Your task to perform on an android device: toggle notification dots Image 0: 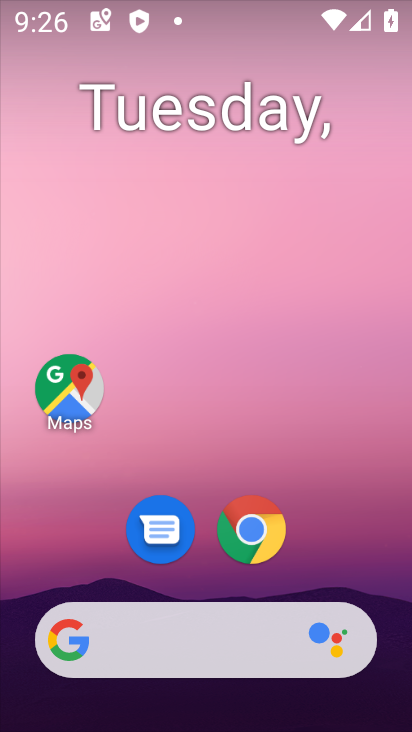
Step 0: drag from (254, 628) to (267, 206)
Your task to perform on an android device: toggle notification dots Image 1: 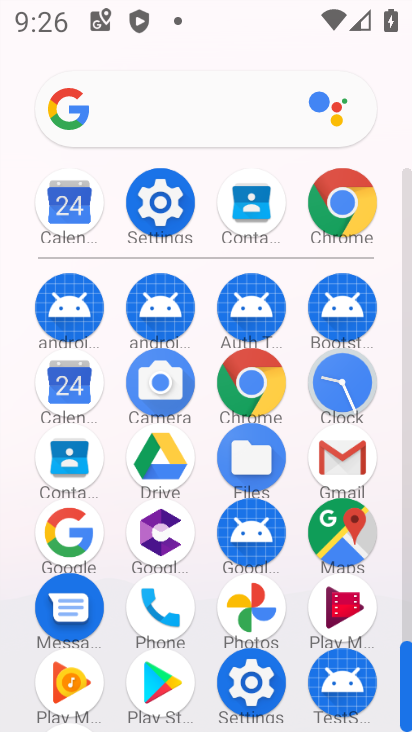
Step 1: click (178, 207)
Your task to perform on an android device: toggle notification dots Image 2: 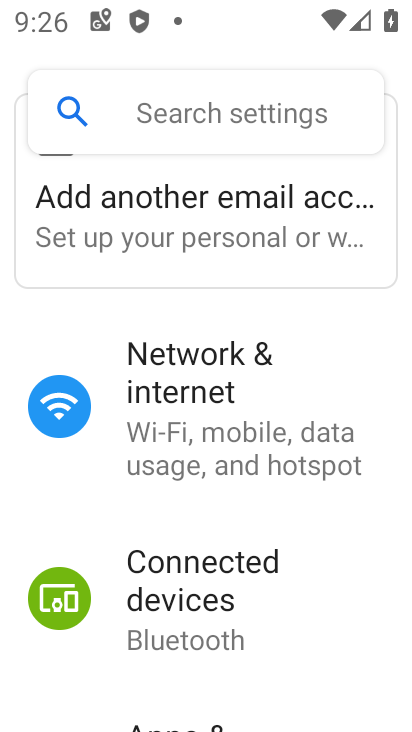
Step 2: drag from (160, 526) to (160, 305)
Your task to perform on an android device: toggle notification dots Image 3: 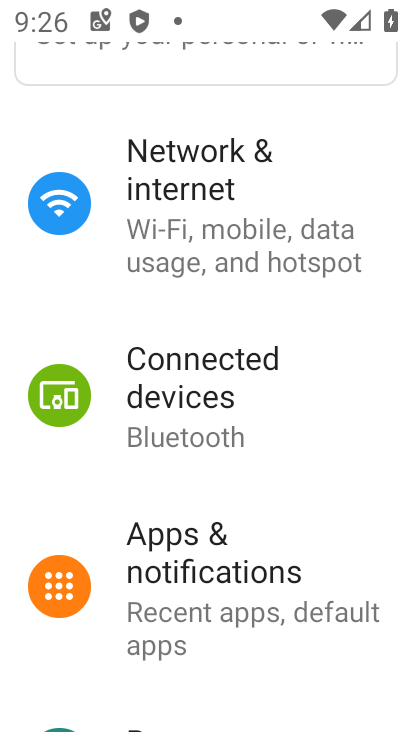
Step 3: drag from (185, 576) to (183, 450)
Your task to perform on an android device: toggle notification dots Image 4: 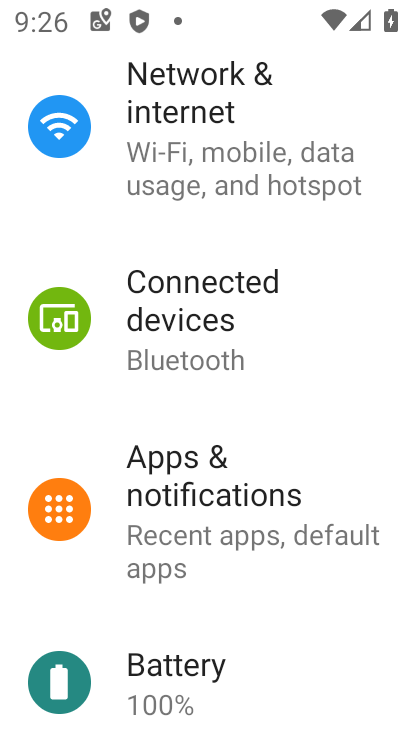
Step 4: click (239, 545)
Your task to perform on an android device: toggle notification dots Image 5: 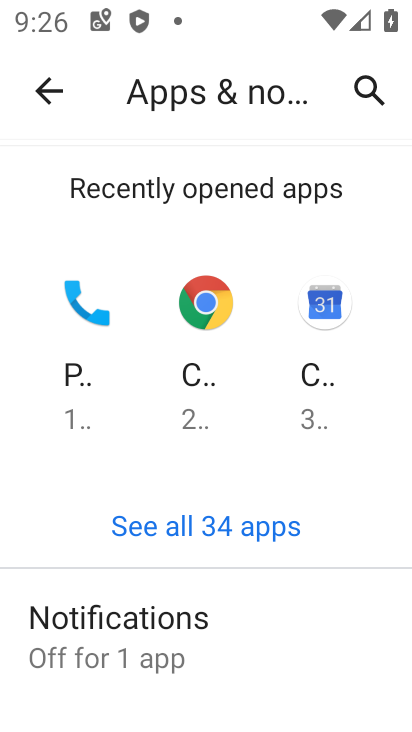
Step 5: drag from (217, 624) to (226, 497)
Your task to perform on an android device: toggle notification dots Image 6: 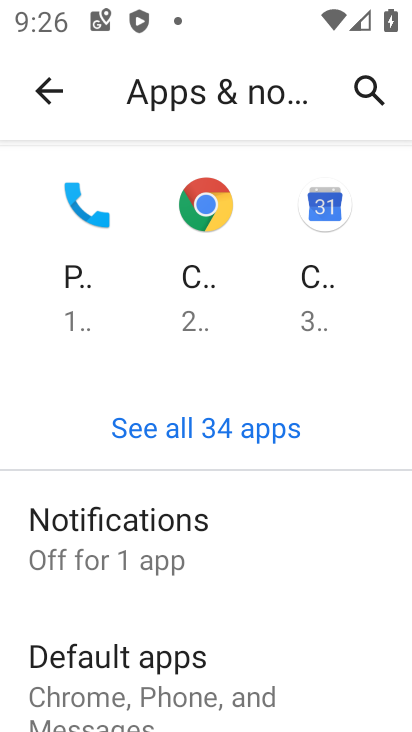
Step 6: click (210, 527)
Your task to perform on an android device: toggle notification dots Image 7: 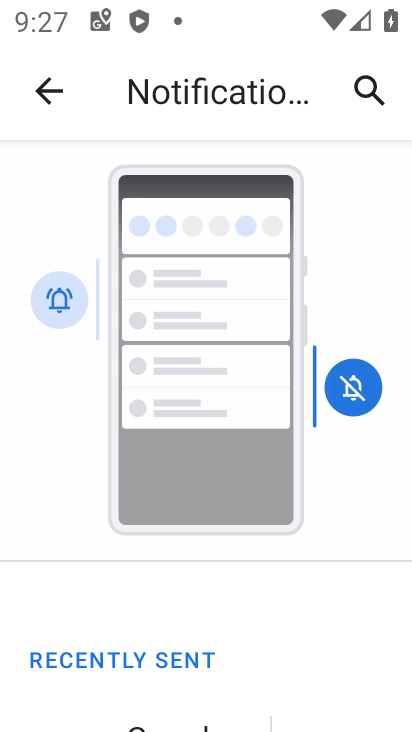
Step 7: drag from (205, 546) to (231, 316)
Your task to perform on an android device: toggle notification dots Image 8: 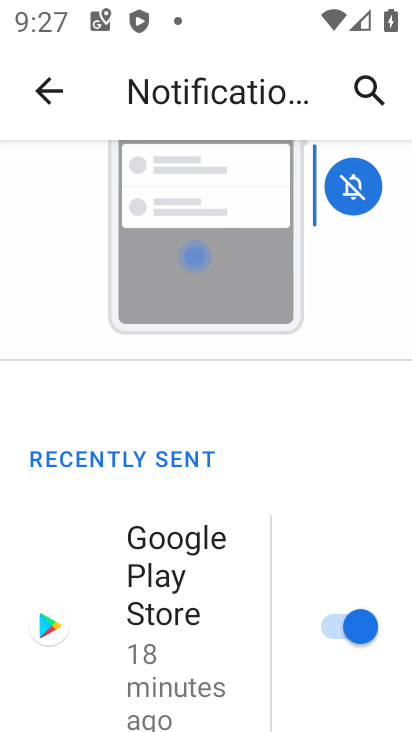
Step 8: drag from (197, 565) to (224, 436)
Your task to perform on an android device: toggle notification dots Image 9: 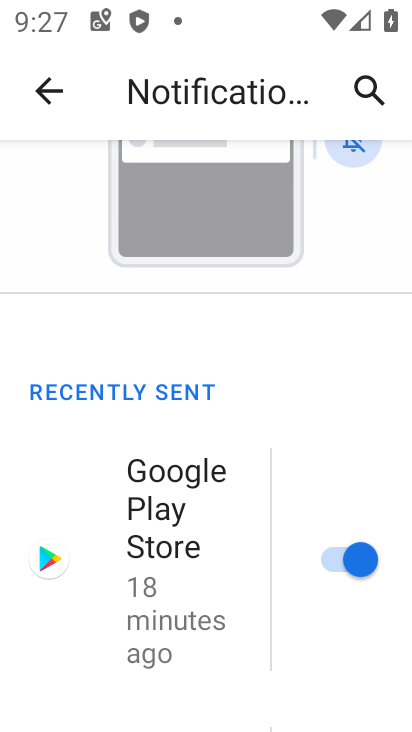
Step 9: drag from (193, 564) to (180, 314)
Your task to perform on an android device: toggle notification dots Image 10: 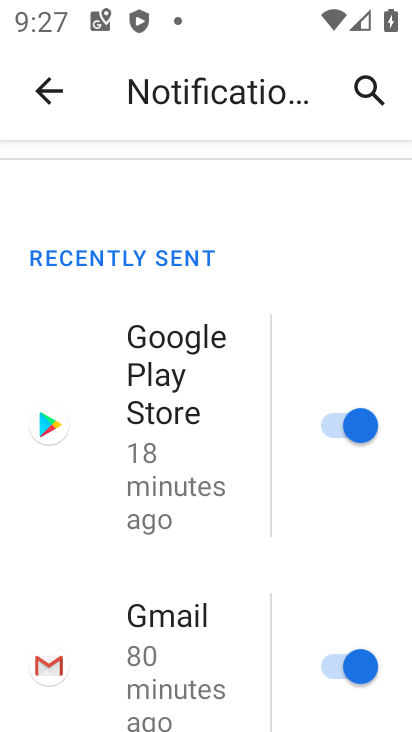
Step 10: drag from (154, 521) to (187, 256)
Your task to perform on an android device: toggle notification dots Image 11: 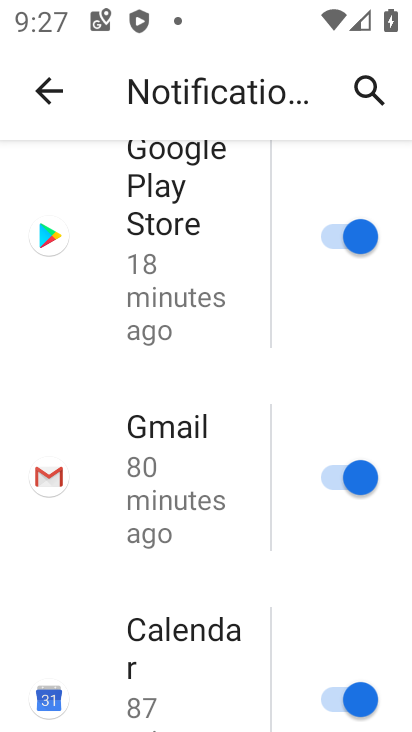
Step 11: drag from (164, 485) to (145, 266)
Your task to perform on an android device: toggle notification dots Image 12: 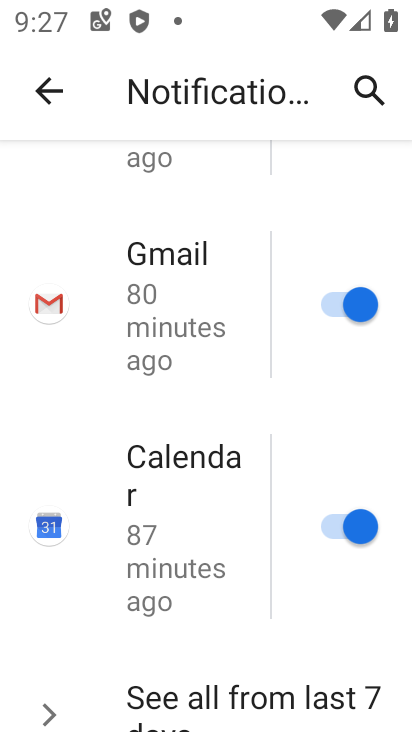
Step 12: drag from (138, 564) to (135, 307)
Your task to perform on an android device: toggle notification dots Image 13: 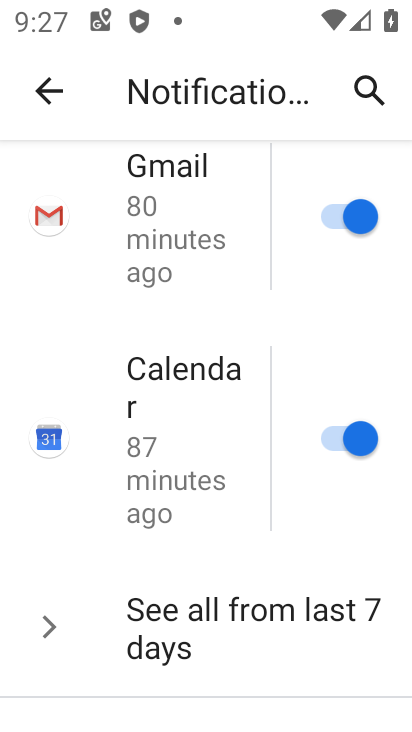
Step 13: drag from (151, 582) to (186, 218)
Your task to perform on an android device: toggle notification dots Image 14: 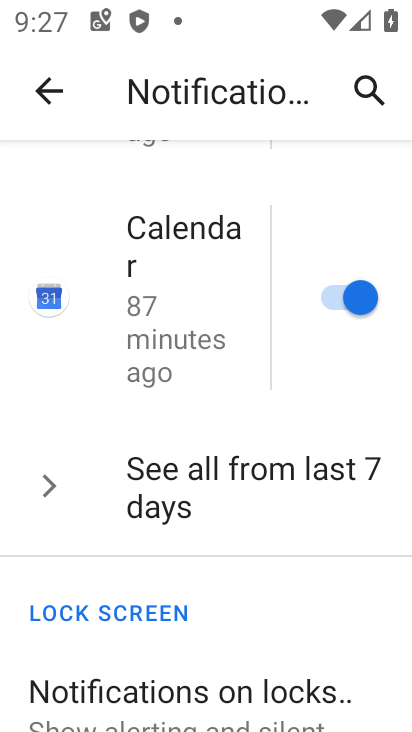
Step 14: drag from (161, 574) to (167, 351)
Your task to perform on an android device: toggle notification dots Image 15: 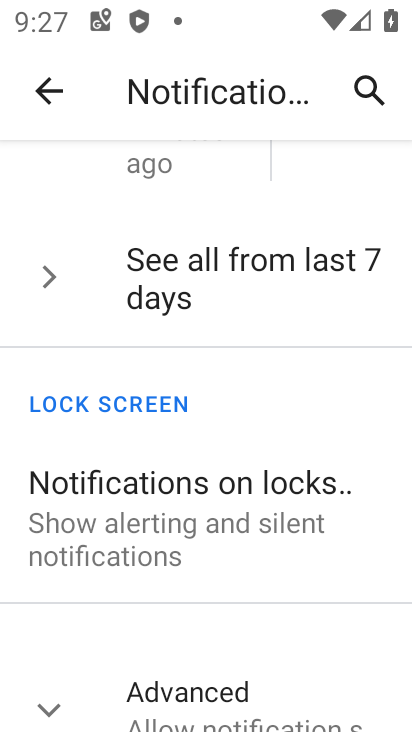
Step 15: drag from (189, 703) to (228, 359)
Your task to perform on an android device: toggle notification dots Image 16: 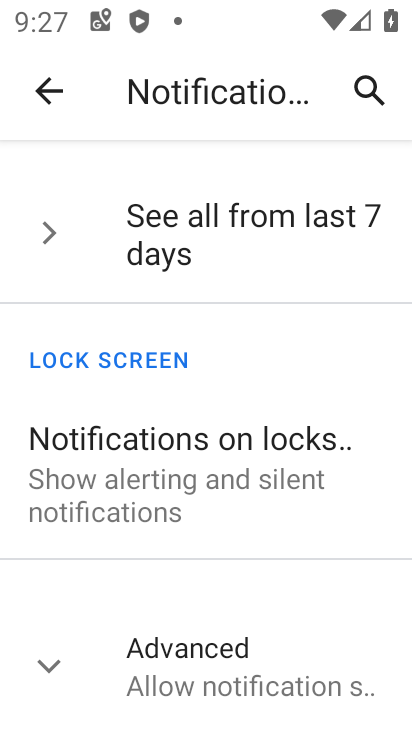
Step 16: click (204, 657)
Your task to perform on an android device: toggle notification dots Image 17: 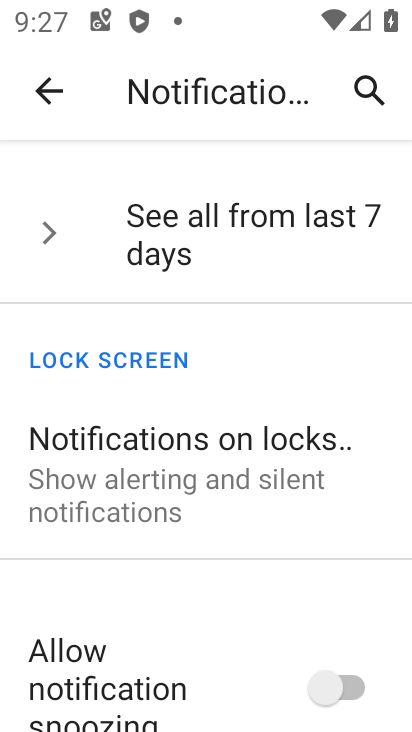
Step 17: drag from (189, 607) to (377, 62)
Your task to perform on an android device: toggle notification dots Image 18: 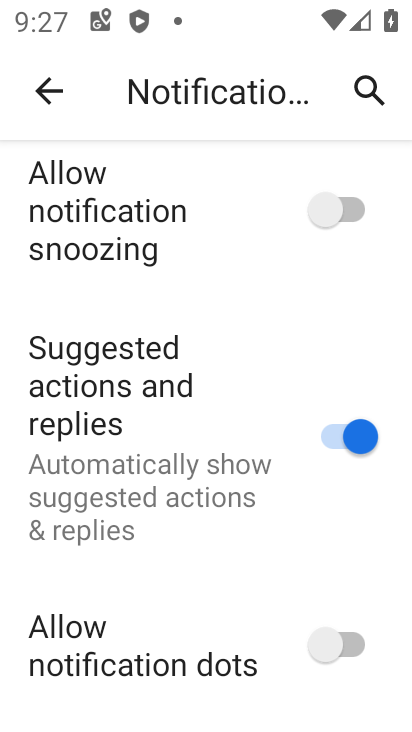
Step 18: click (370, 641)
Your task to perform on an android device: toggle notification dots Image 19: 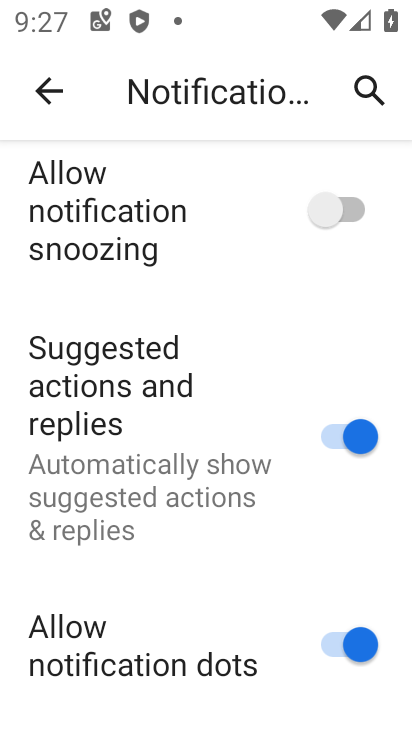
Step 19: task complete